Your task to perform on an android device: turn on the 24-hour format for clock Image 0: 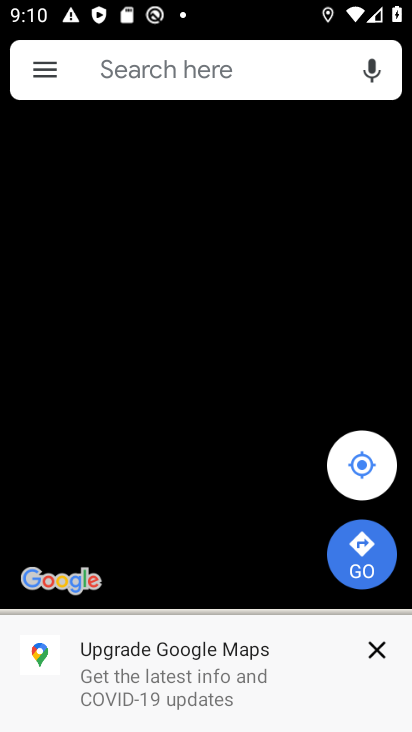
Step 0: press home button
Your task to perform on an android device: turn on the 24-hour format for clock Image 1: 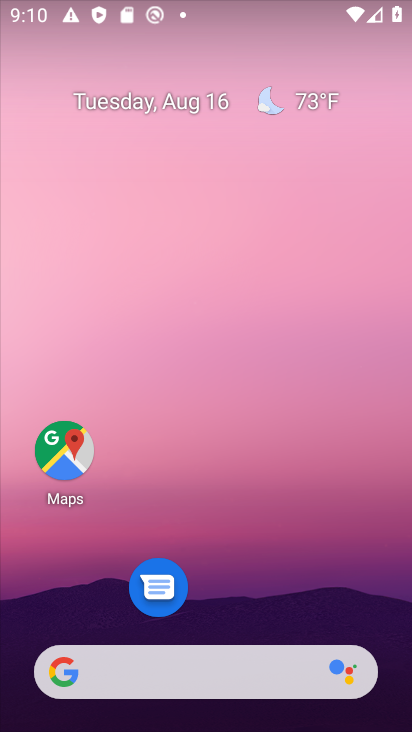
Step 1: drag from (230, 620) to (259, 0)
Your task to perform on an android device: turn on the 24-hour format for clock Image 2: 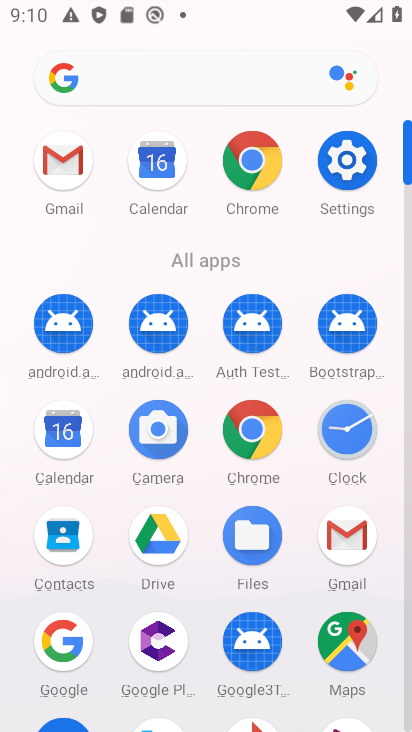
Step 2: click (348, 445)
Your task to perform on an android device: turn on the 24-hour format for clock Image 3: 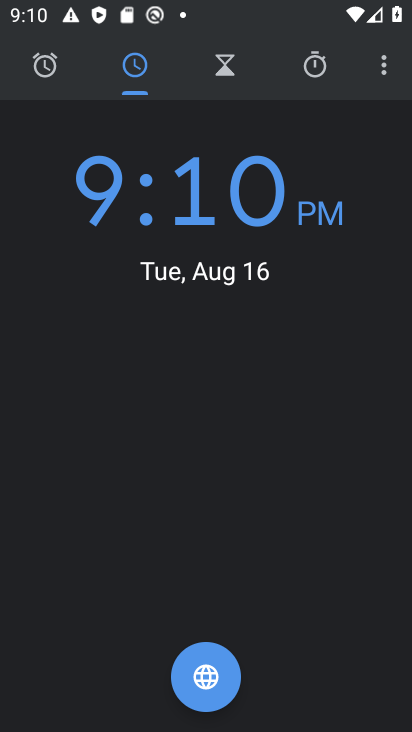
Step 3: click (381, 64)
Your task to perform on an android device: turn on the 24-hour format for clock Image 4: 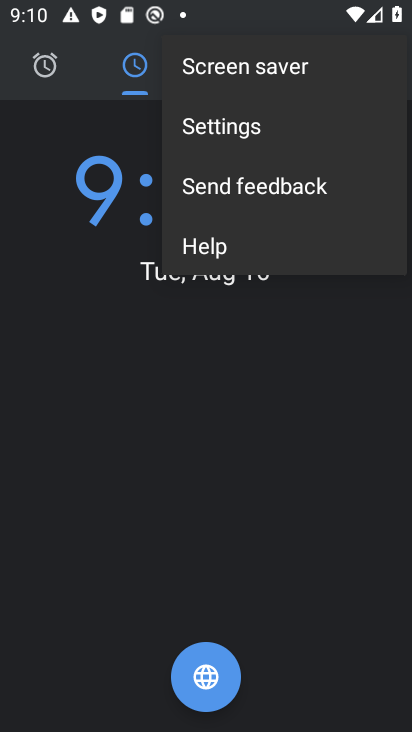
Step 4: click (224, 117)
Your task to perform on an android device: turn on the 24-hour format for clock Image 5: 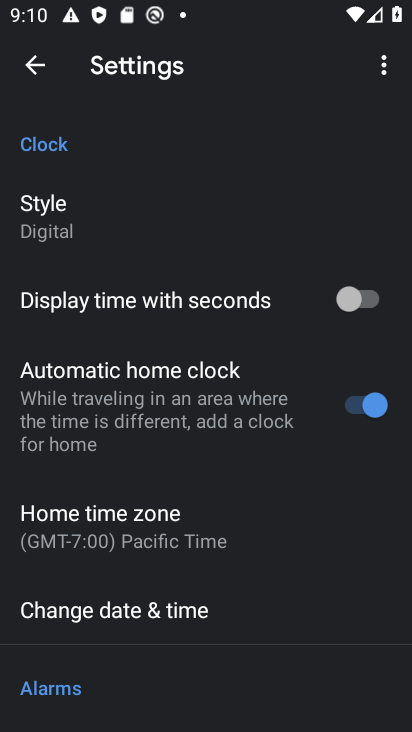
Step 5: click (155, 591)
Your task to perform on an android device: turn on the 24-hour format for clock Image 6: 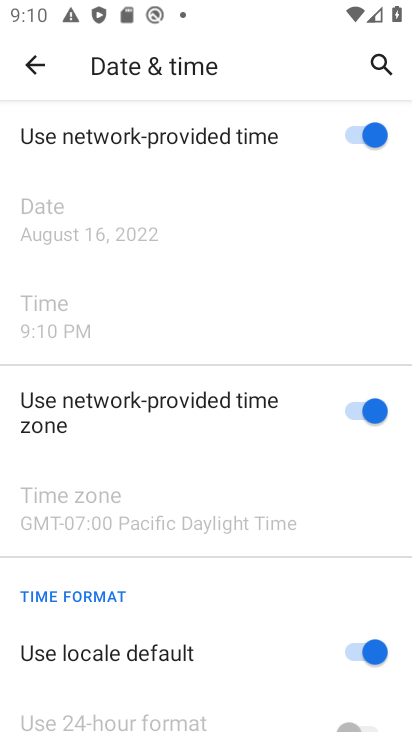
Step 6: drag from (177, 583) to (403, 6)
Your task to perform on an android device: turn on the 24-hour format for clock Image 7: 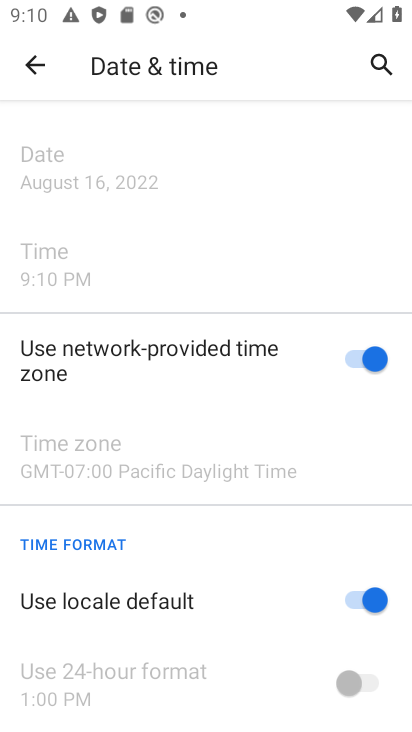
Step 7: click (360, 614)
Your task to perform on an android device: turn on the 24-hour format for clock Image 8: 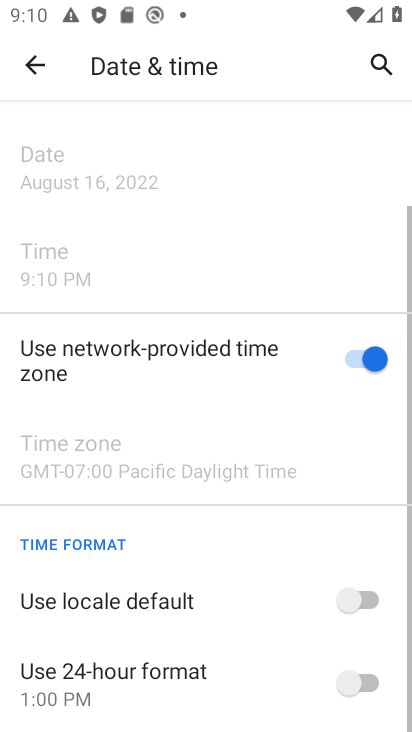
Step 8: click (368, 691)
Your task to perform on an android device: turn on the 24-hour format for clock Image 9: 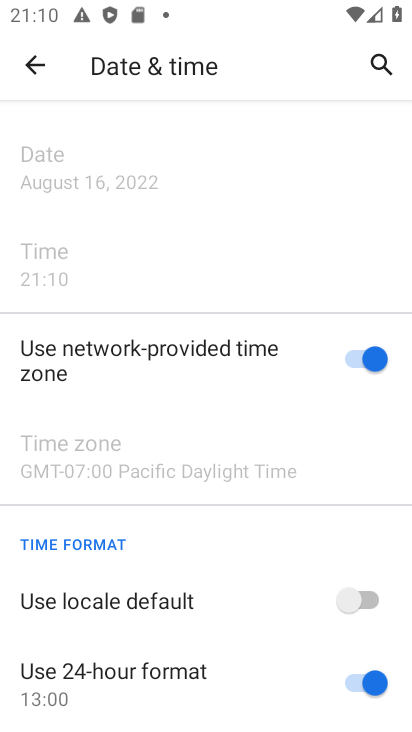
Step 9: task complete